Your task to perform on an android device: change the clock display to digital Image 0: 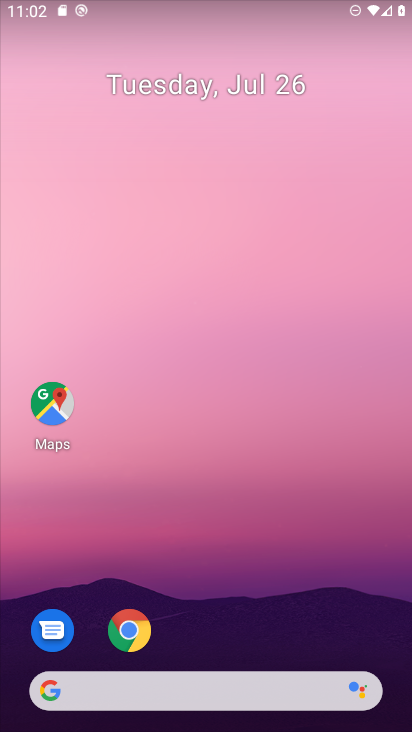
Step 0: drag from (384, 648) to (348, 75)
Your task to perform on an android device: change the clock display to digital Image 1: 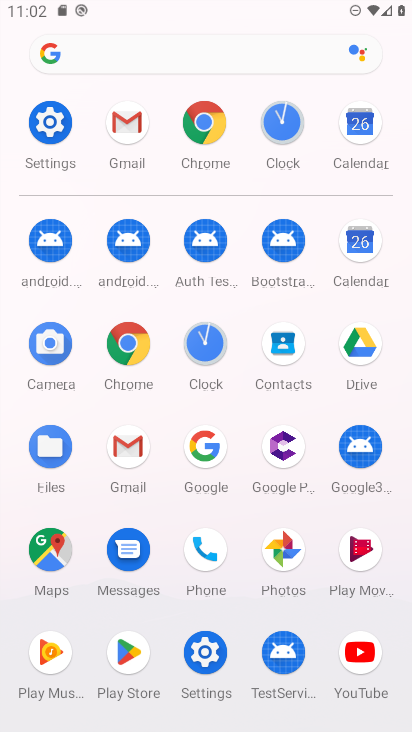
Step 1: click (205, 347)
Your task to perform on an android device: change the clock display to digital Image 2: 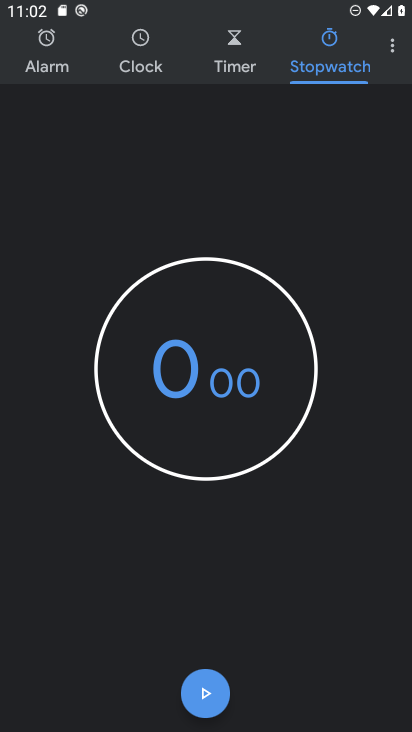
Step 2: click (393, 53)
Your task to perform on an android device: change the clock display to digital Image 3: 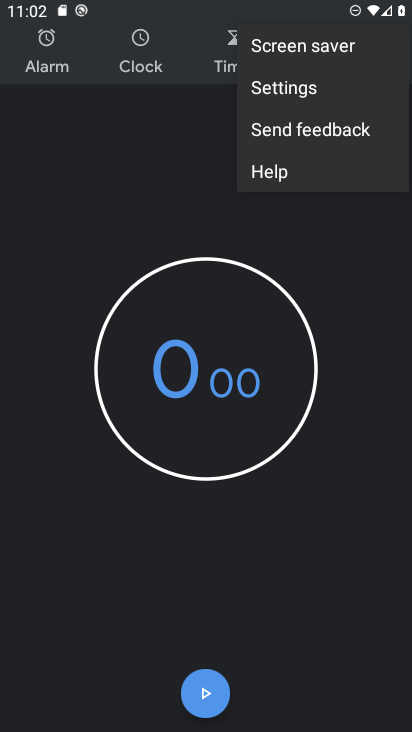
Step 3: click (279, 84)
Your task to perform on an android device: change the clock display to digital Image 4: 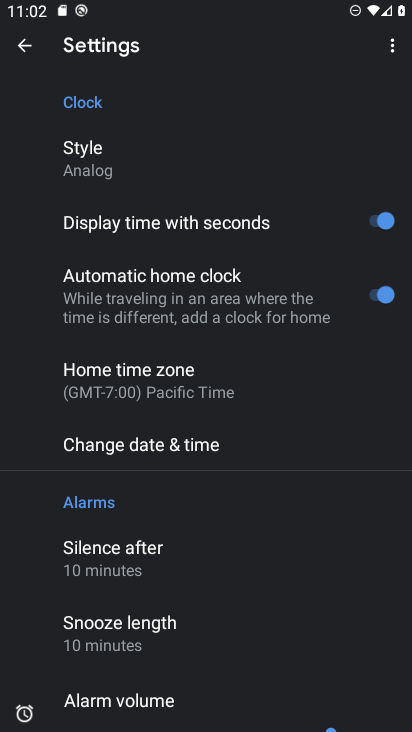
Step 4: click (88, 156)
Your task to perform on an android device: change the clock display to digital Image 5: 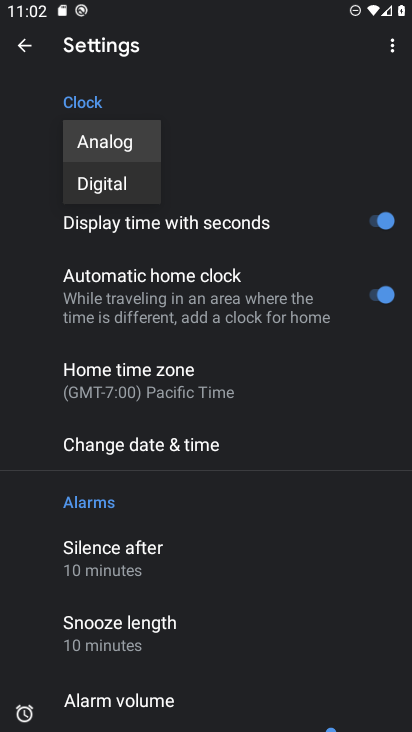
Step 5: click (104, 183)
Your task to perform on an android device: change the clock display to digital Image 6: 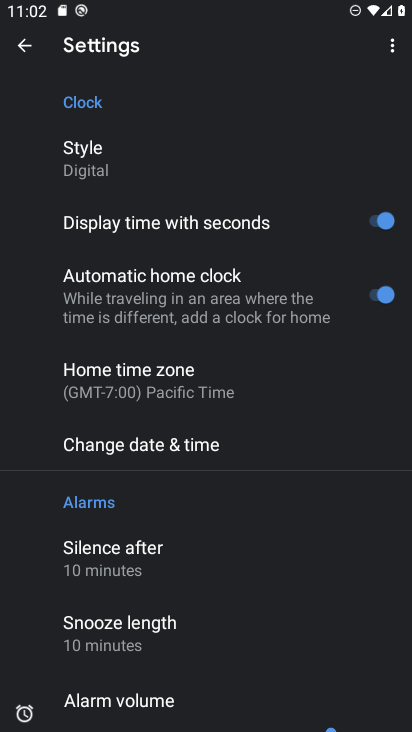
Step 6: task complete